Your task to perform on an android device: check out phone information Image 0: 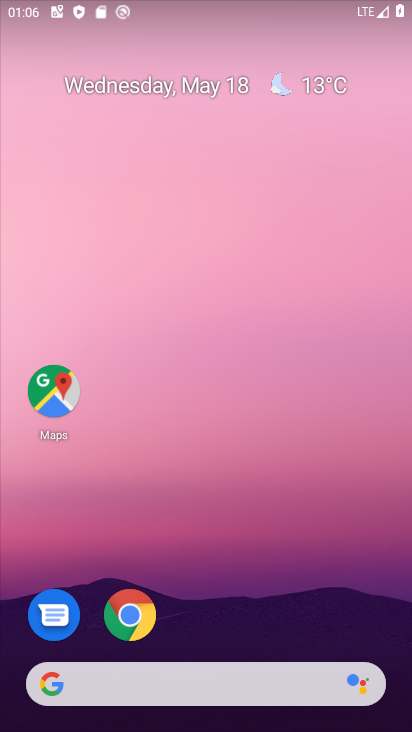
Step 0: drag from (189, 690) to (255, 11)
Your task to perform on an android device: check out phone information Image 1: 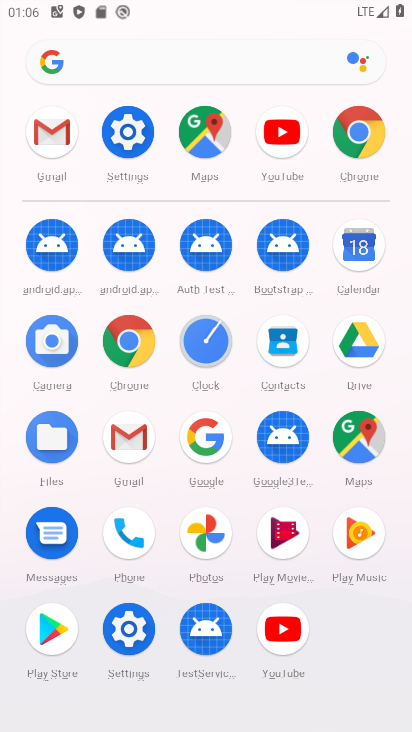
Step 1: click (129, 139)
Your task to perform on an android device: check out phone information Image 2: 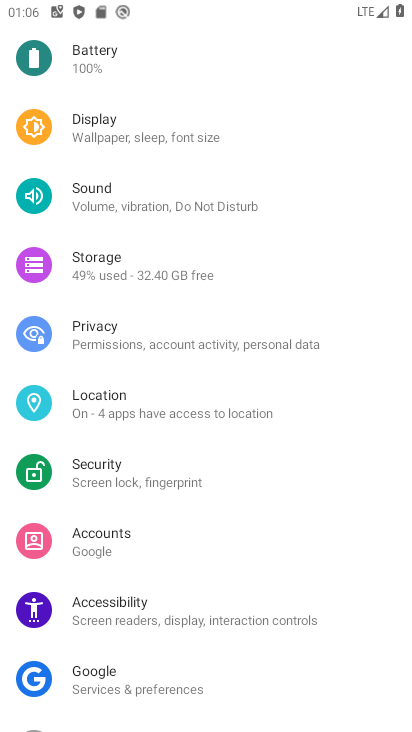
Step 2: drag from (237, 644) to (322, 175)
Your task to perform on an android device: check out phone information Image 3: 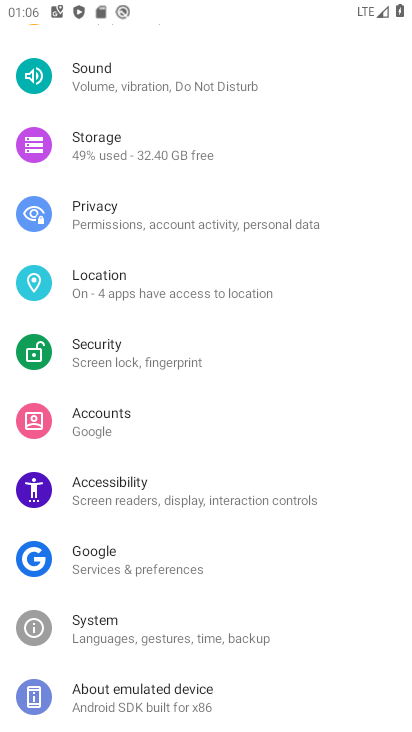
Step 3: click (189, 702)
Your task to perform on an android device: check out phone information Image 4: 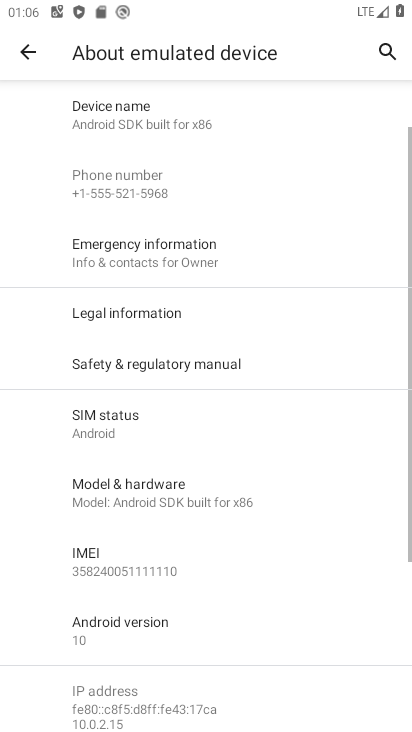
Step 4: task complete